Your task to perform on an android device: toggle data saver in the chrome app Image 0: 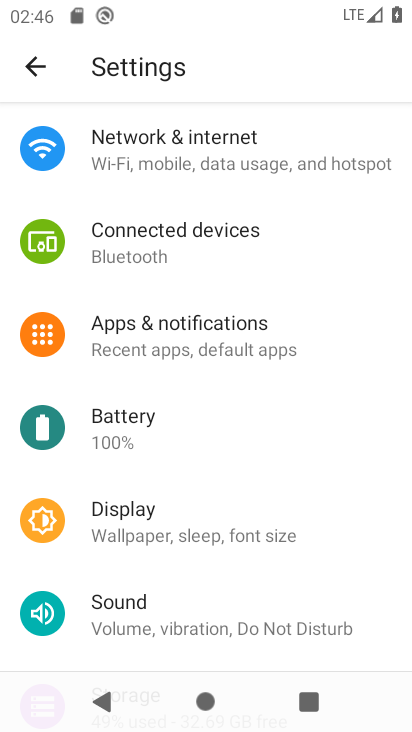
Step 0: press home button
Your task to perform on an android device: toggle data saver in the chrome app Image 1: 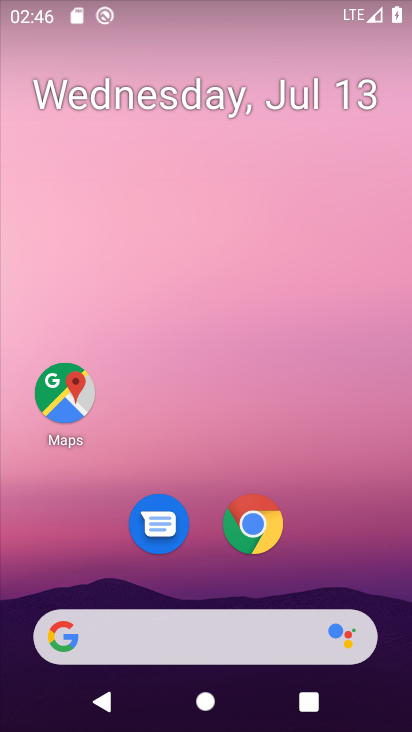
Step 1: click (261, 516)
Your task to perform on an android device: toggle data saver in the chrome app Image 2: 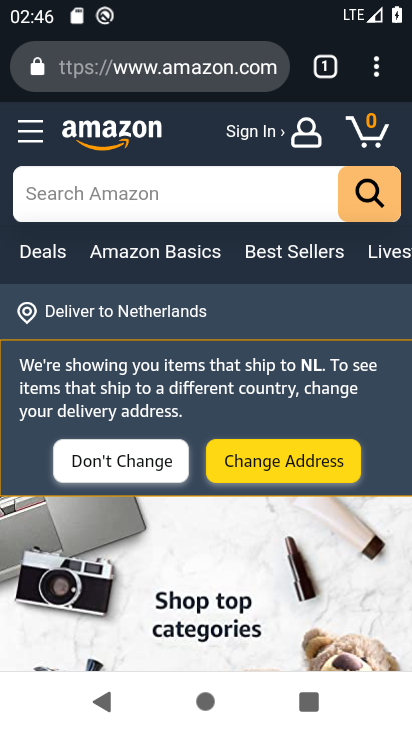
Step 2: click (375, 70)
Your task to perform on an android device: toggle data saver in the chrome app Image 3: 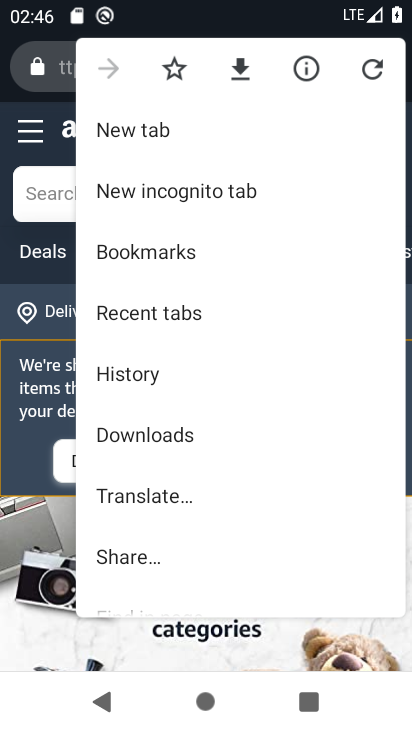
Step 3: drag from (229, 547) to (260, 101)
Your task to perform on an android device: toggle data saver in the chrome app Image 4: 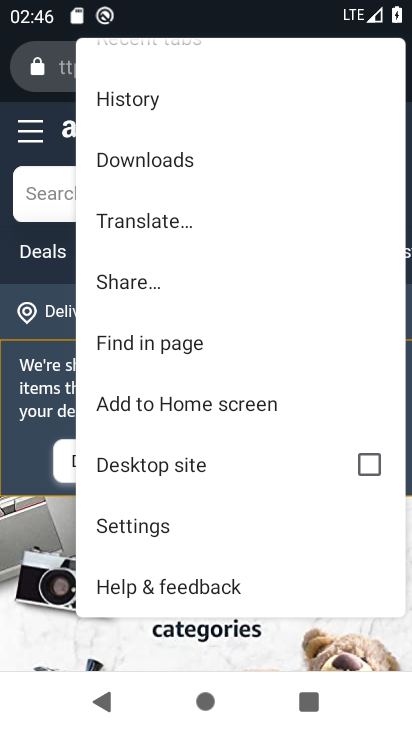
Step 4: click (146, 525)
Your task to perform on an android device: toggle data saver in the chrome app Image 5: 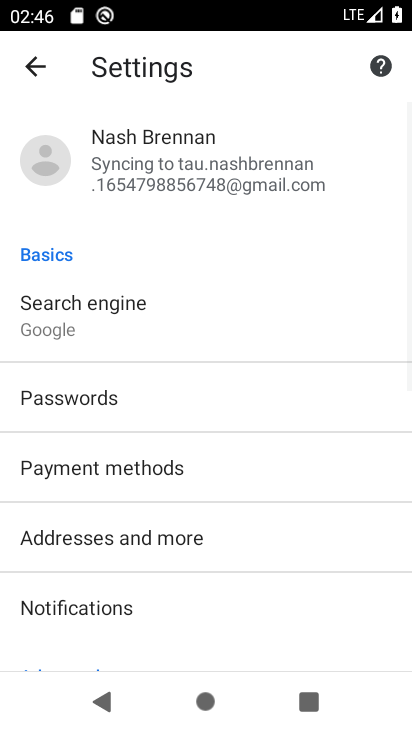
Step 5: drag from (191, 500) to (276, 106)
Your task to perform on an android device: toggle data saver in the chrome app Image 6: 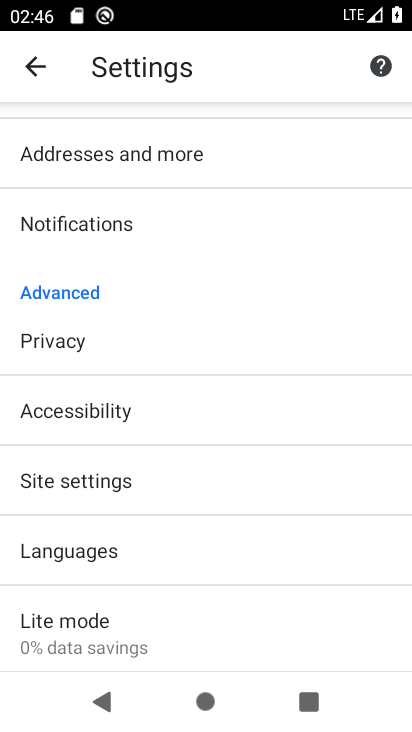
Step 6: click (96, 618)
Your task to perform on an android device: toggle data saver in the chrome app Image 7: 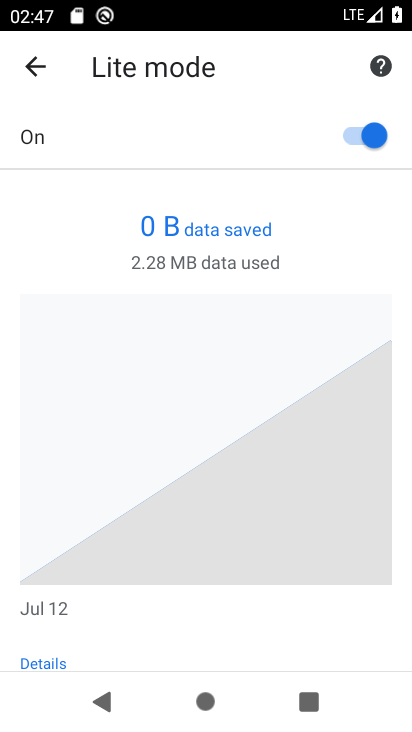
Step 7: click (366, 134)
Your task to perform on an android device: toggle data saver in the chrome app Image 8: 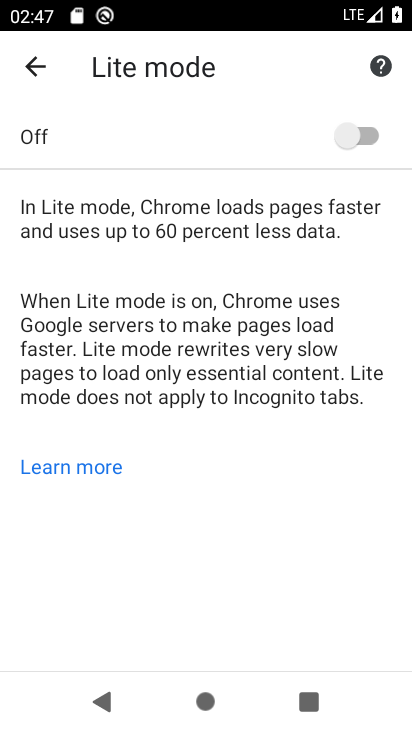
Step 8: task complete